Your task to perform on an android device: Show me popular videos on Youtube Image 0: 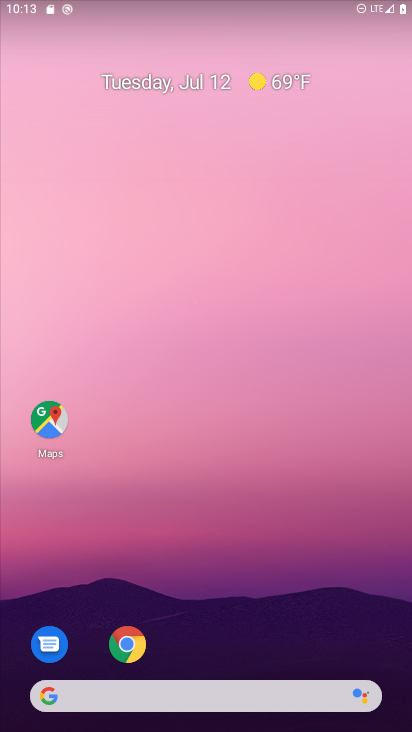
Step 0: drag from (222, 604) to (275, 61)
Your task to perform on an android device: Show me popular videos on Youtube Image 1: 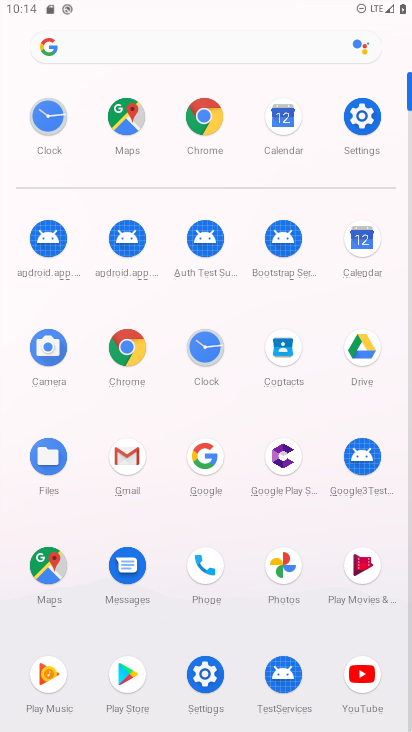
Step 1: click (365, 667)
Your task to perform on an android device: Show me popular videos on Youtube Image 2: 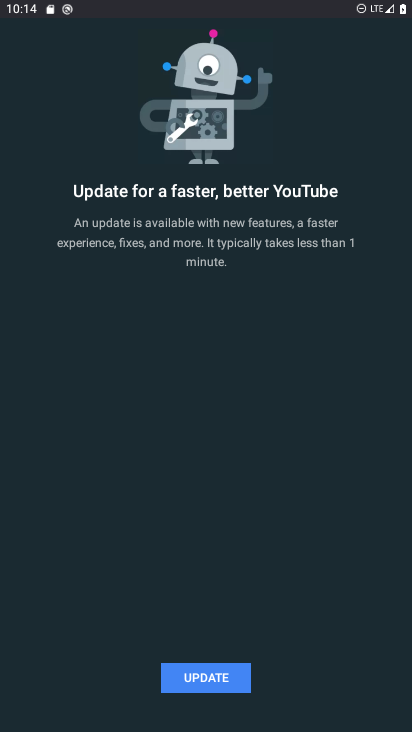
Step 2: click (206, 682)
Your task to perform on an android device: Show me popular videos on Youtube Image 3: 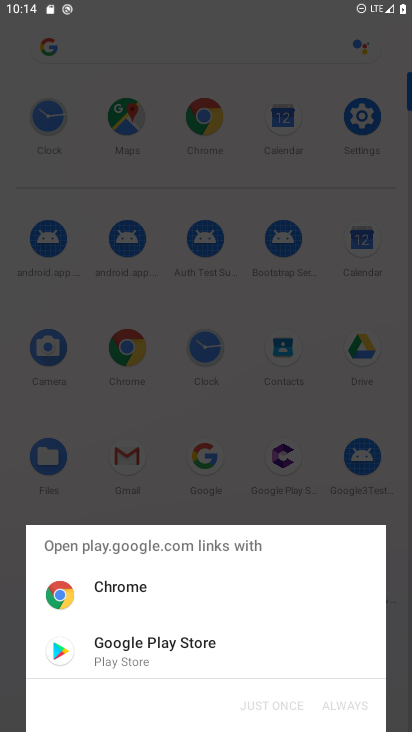
Step 3: click (159, 644)
Your task to perform on an android device: Show me popular videos on Youtube Image 4: 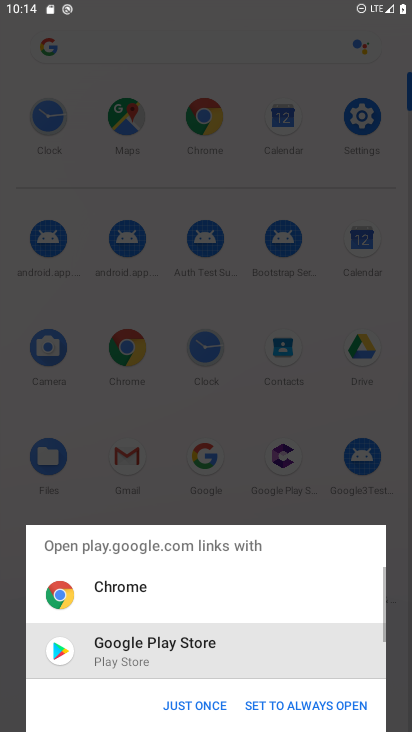
Step 4: click (200, 706)
Your task to perform on an android device: Show me popular videos on Youtube Image 5: 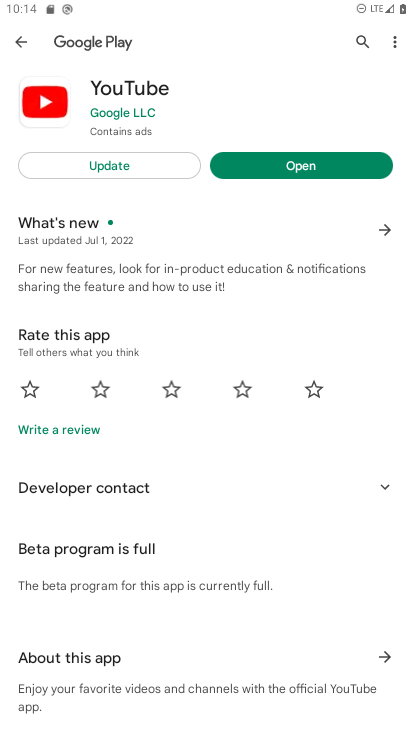
Step 5: click (107, 170)
Your task to perform on an android device: Show me popular videos on Youtube Image 6: 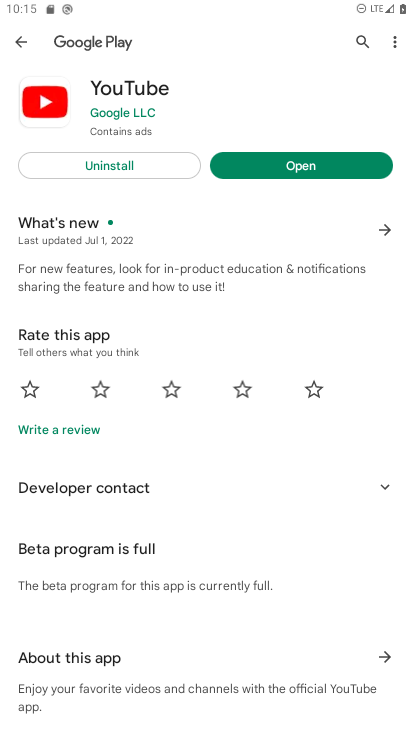
Step 6: click (307, 160)
Your task to perform on an android device: Show me popular videos on Youtube Image 7: 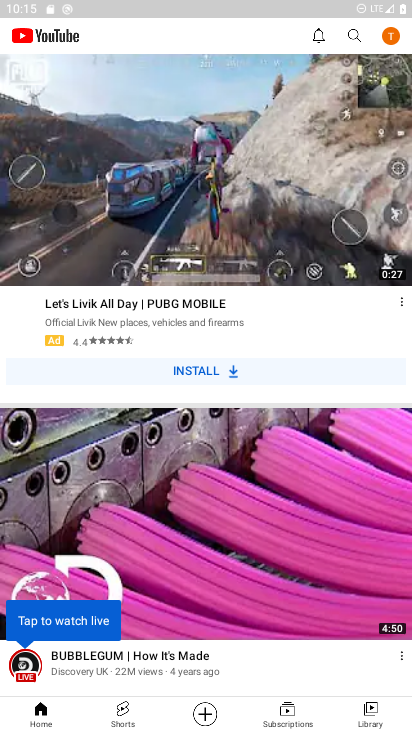
Step 7: click (385, 33)
Your task to perform on an android device: Show me popular videos on Youtube Image 8: 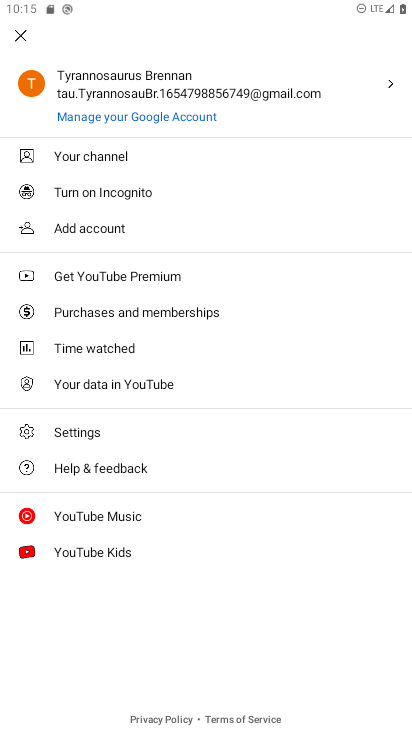
Step 8: click (185, 659)
Your task to perform on an android device: Show me popular videos on Youtube Image 9: 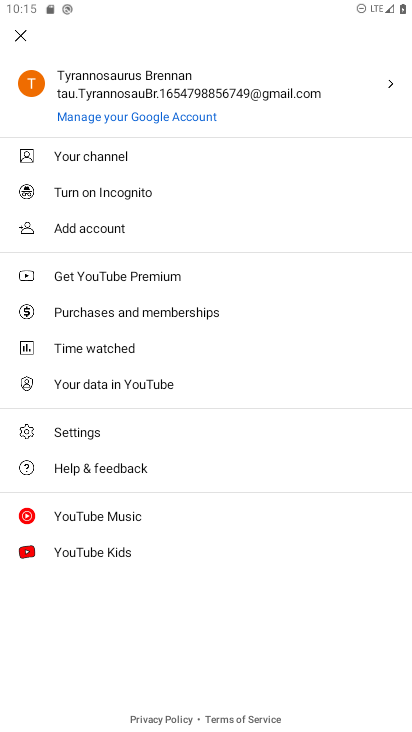
Step 9: click (10, 34)
Your task to perform on an android device: Show me popular videos on Youtube Image 10: 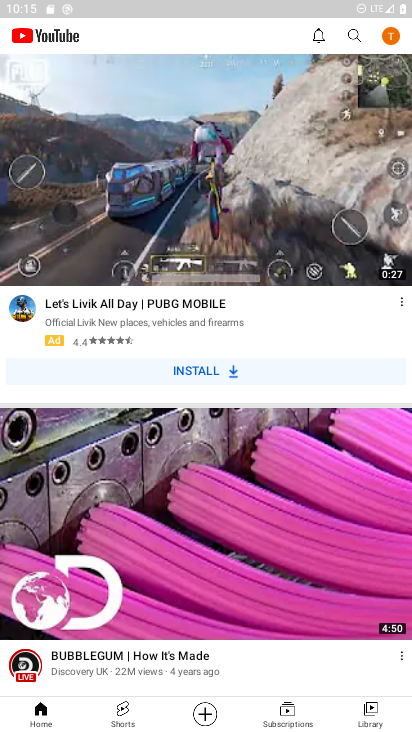
Step 10: drag from (172, 541) to (175, 5)
Your task to perform on an android device: Show me popular videos on Youtube Image 11: 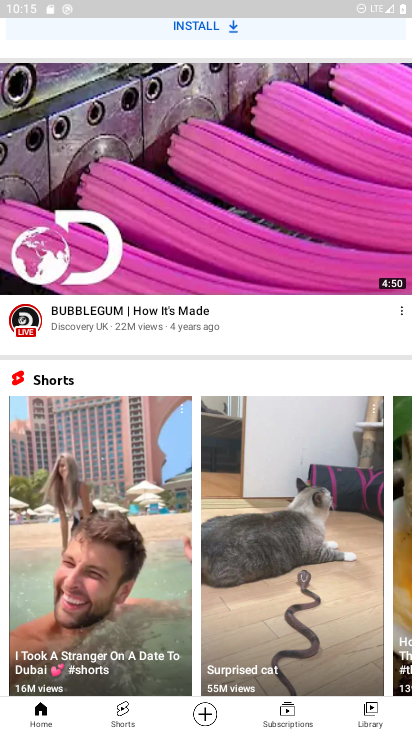
Step 11: drag from (186, 501) to (193, 23)
Your task to perform on an android device: Show me popular videos on Youtube Image 12: 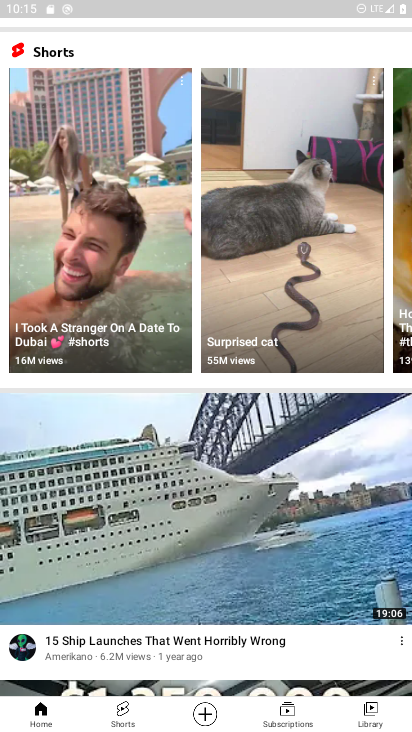
Step 12: drag from (211, 152) to (177, 669)
Your task to perform on an android device: Show me popular videos on Youtube Image 13: 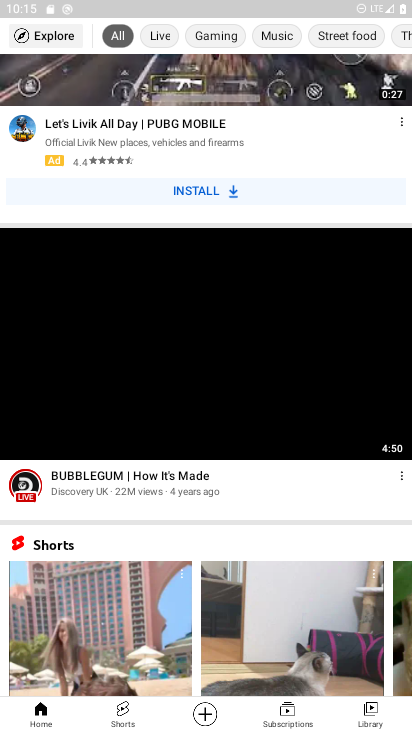
Step 13: click (48, 29)
Your task to perform on an android device: Show me popular videos on Youtube Image 14: 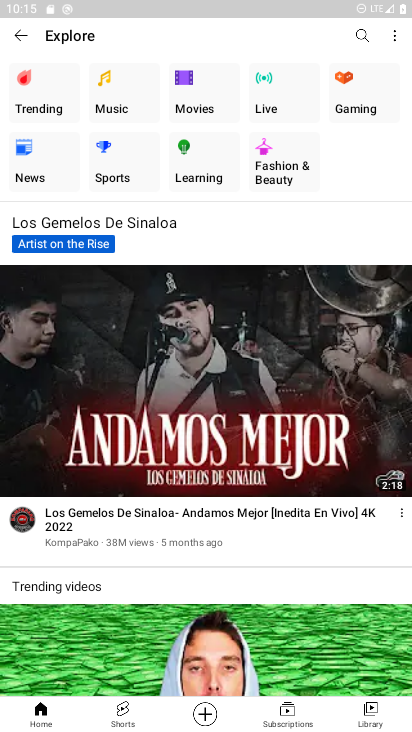
Step 14: click (35, 84)
Your task to perform on an android device: Show me popular videos on Youtube Image 15: 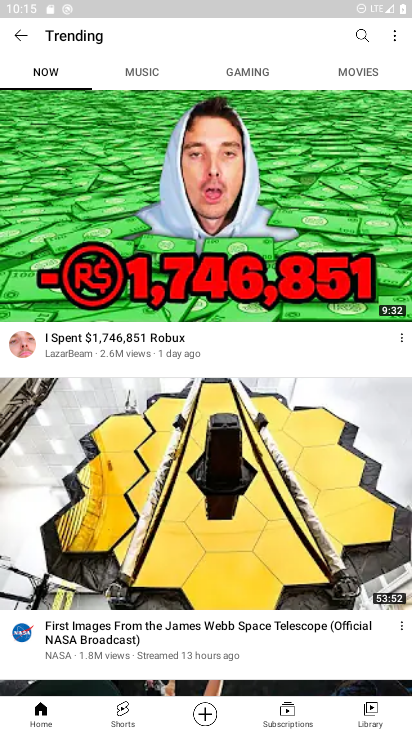
Step 15: task complete